Your task to perform on an android device: turn off data saver in the chrome app Image 0: 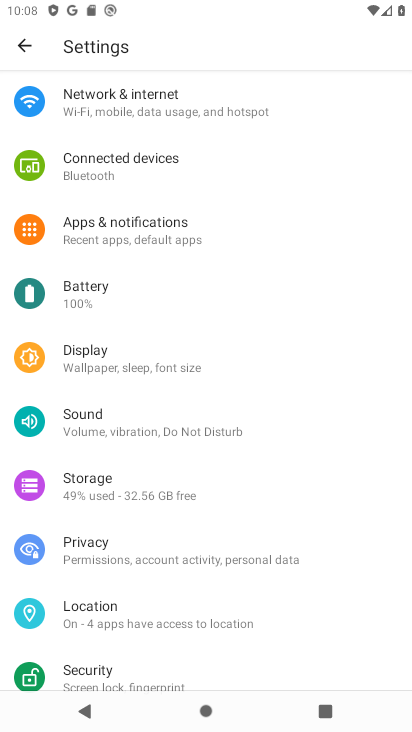
Step 0: press home button
Your task to perform on an android device: turn off data saver in the chrome app Image 1: 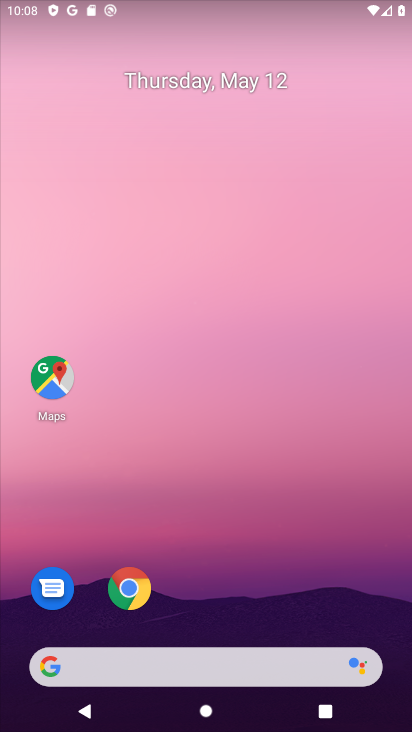
Step 1: drag from (149, 649) to (207, 191)
Your task to perform on an android device: turn off data saver in the chrome app Image 2: 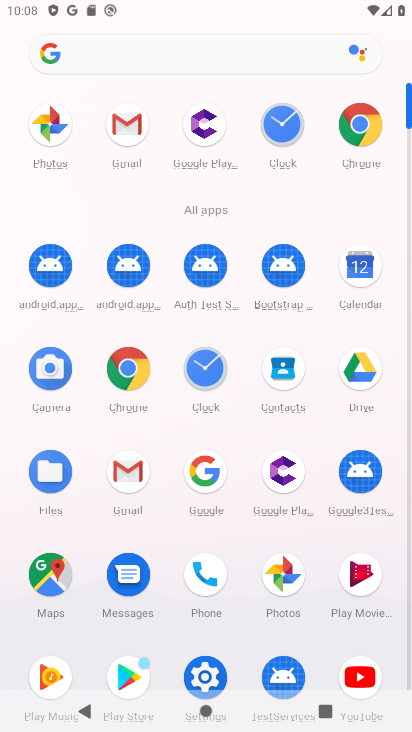
Step 2: click (349, 132)
Your task to perform on an android device: turn off data saver in the chrome app Image 3: 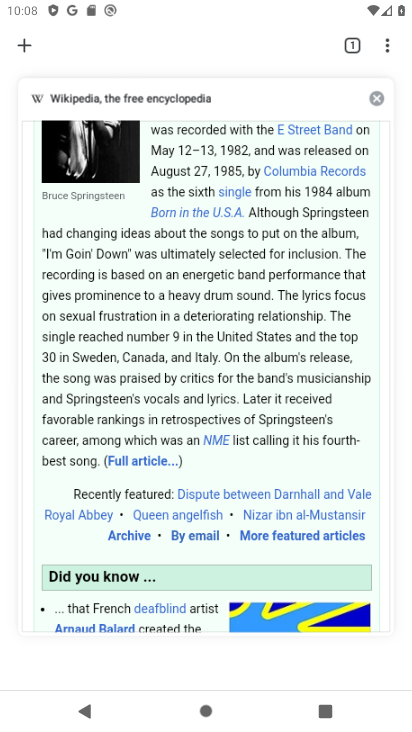
Step 3: click (389, 41)
Your task to perform on an android device: turn off data saver in the chrome app Image 4: 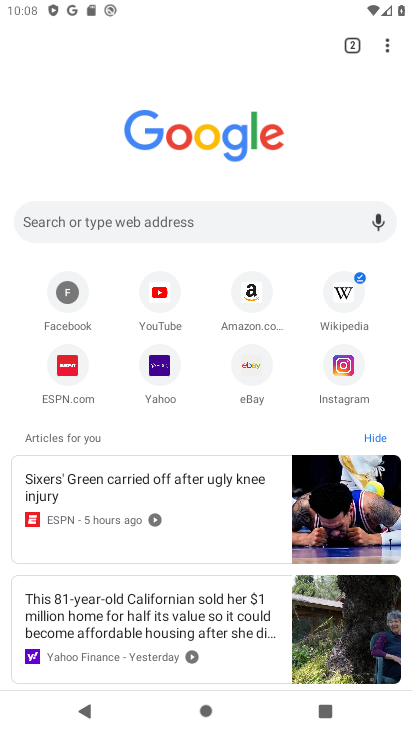
Step 4: click (389, 41)
Your task to perform on an android device: turn off data saver in the chrome app Image 5: 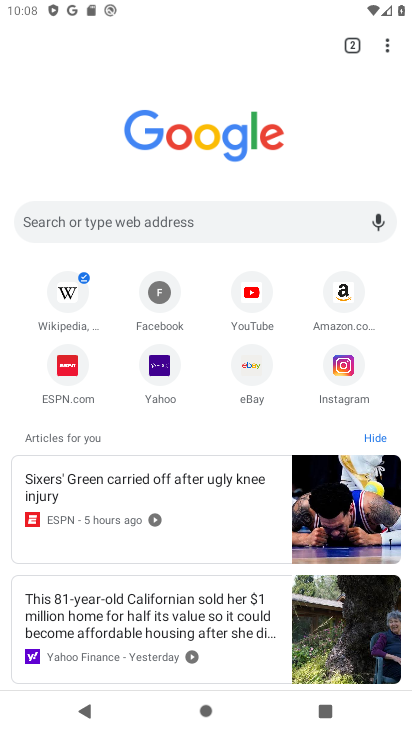
Step 5: click (389, 41)
Your task to perform on an android device: turn off data saver in the chrome app Image 6: 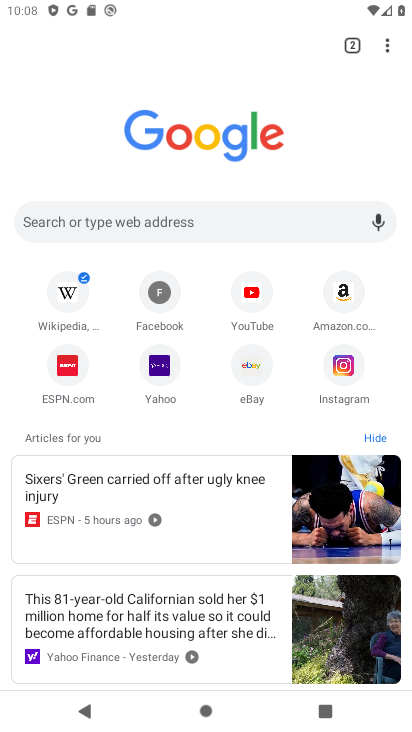
Step 6: click (386, 43)
Your task to perform on an android device: turn off data saver in the chrome app Image 7: 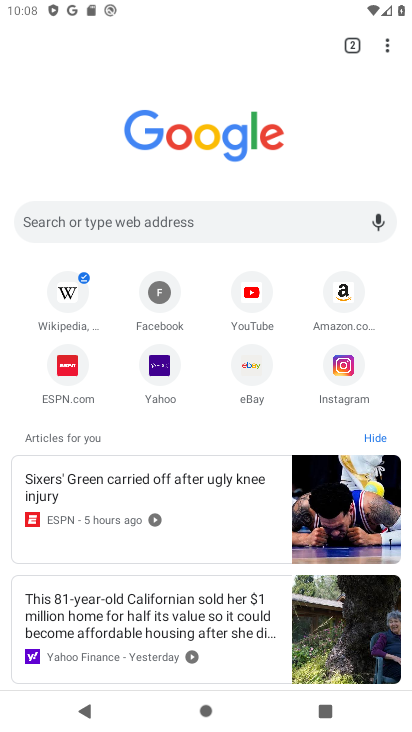
Step 7: click (386, 43)
Your task to perform on an android device: turn off data saver in the chrome app Image 8: 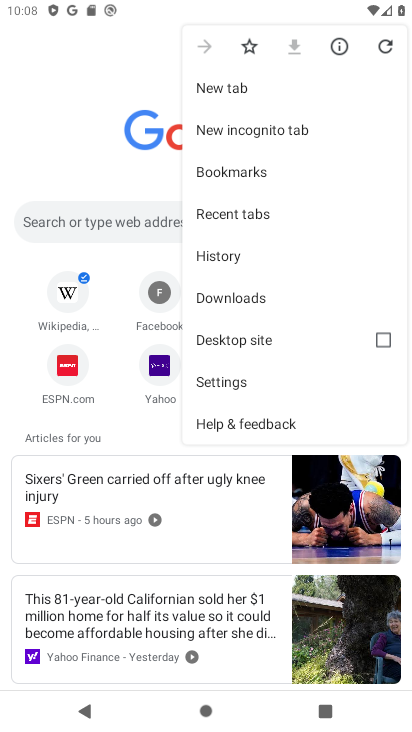
Step 8: click (236, 373)
Your task to perform on an android device: turn off data saver in the chrome app Image 9: 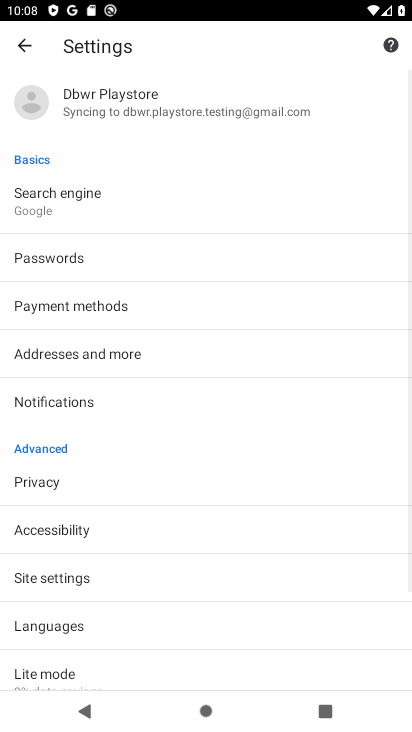
Step 9: click (40, 671)
Your task to perform on an android device: turn off data saver in the chrome app Image 10: 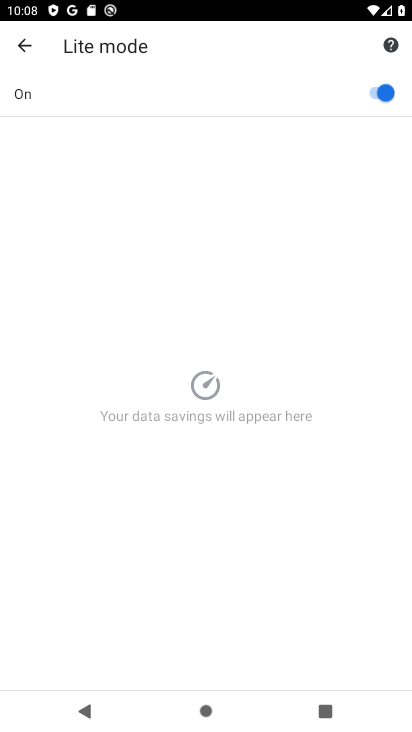
Step 10: click (376, 90)
Your task to perform on an android device: turn off data saver in the chrome app Image 11: 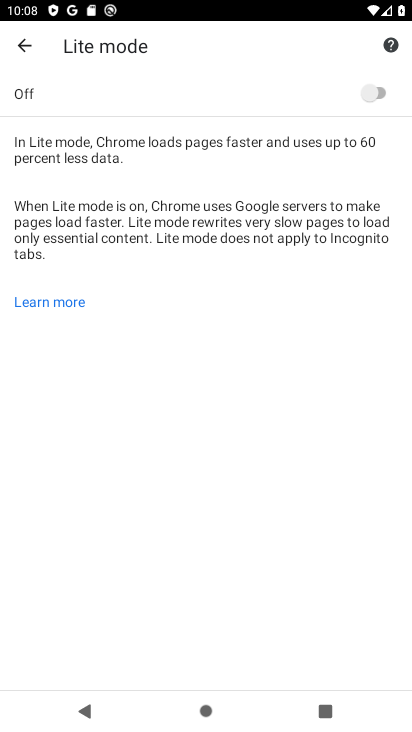
Step 11: task complete